Your task to perform on an android device: Open eBay Image 0: 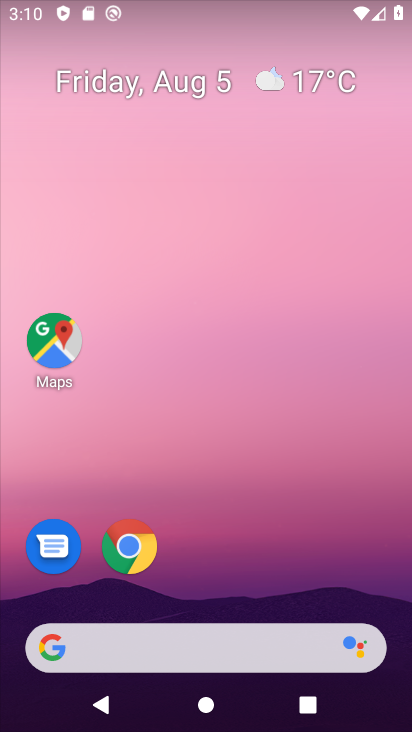
Step 0: press home button
Your task to perform on an android device: Open eBay Image 1: 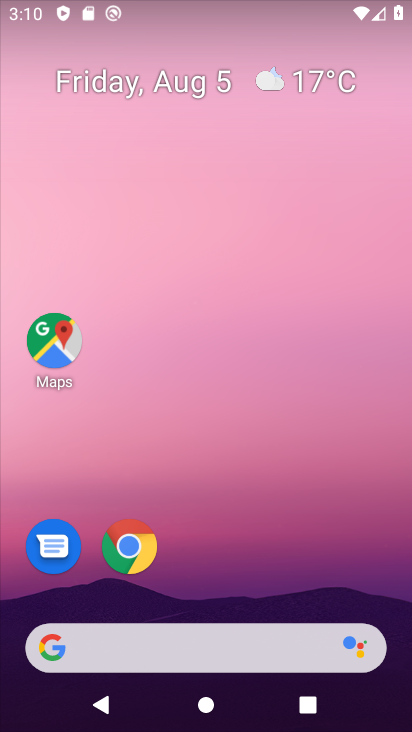
Step 1: drag from (320, 566) to (327, 224)
Your task to perform on an android device: Open eBay Image 2: 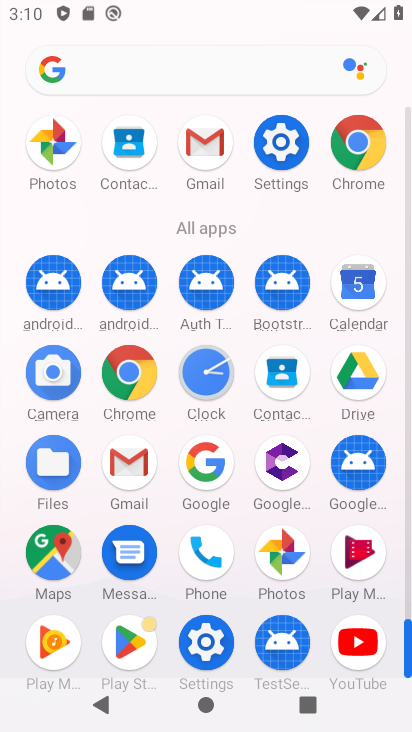
Step 2: click (128, 378)
Your task to perform on an android device: Open eBay Image 3: 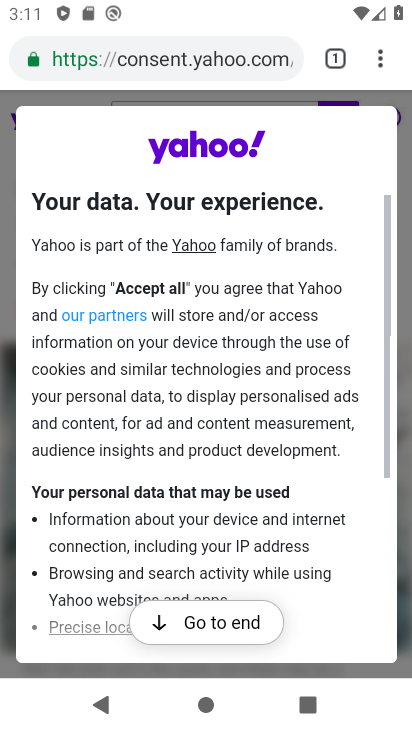
Step 3: click (235, 53)
Your task to perform on an android device: Open eBay Image 4: 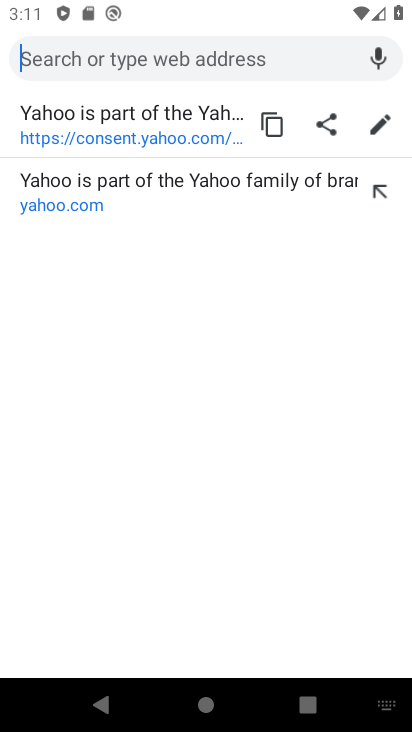
Step 4: type "eaby"
Your task to perform on an android device: Open eBay Image 5: 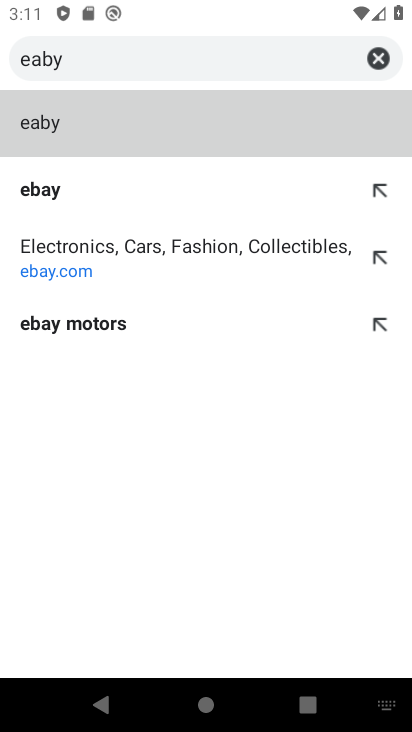
Step 5: click (161, 205)
Your task to perform on an android device: Open eBay Image 6: 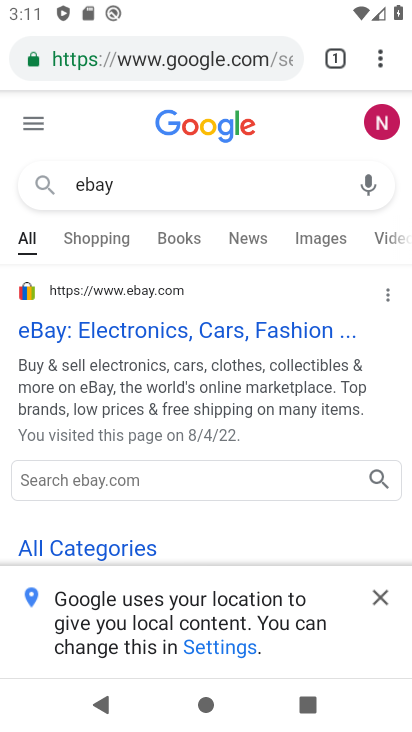
Step 6: task complete